Your task to perform on an android device: When is my next appointment? Image 0: 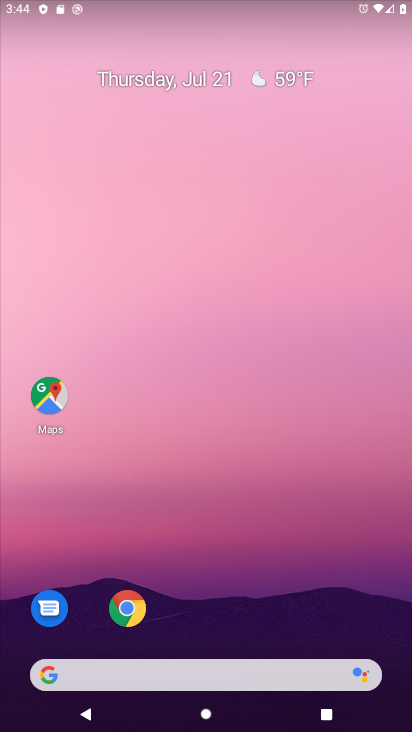
Step 0: drag from (188, 662) to (247, 48)
Your task to perform on an android device: When is my next appointment? Image 1: 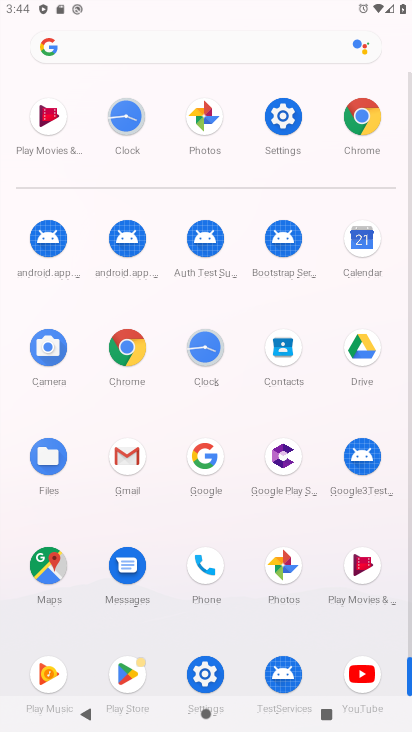
Step 1: click (370, 248)
Your task to perform on an android device: When is my next appointment? Image 2: 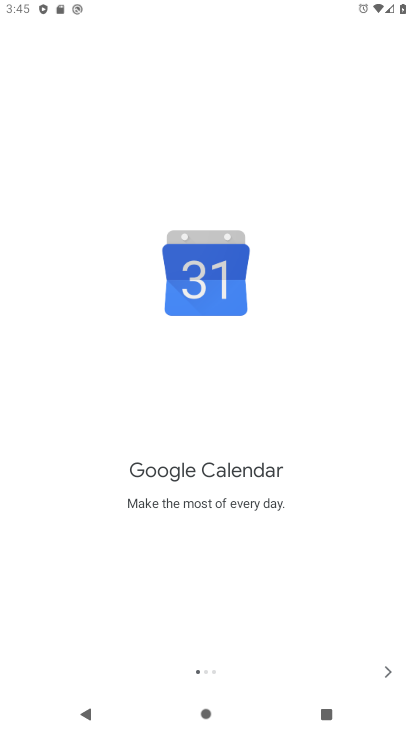
Step 2: click (392, 668)
Your task to perform on an android device: When is my next appointment? Image 3: 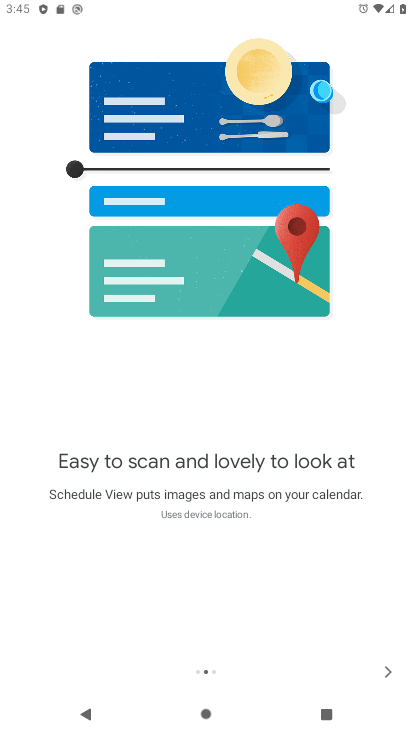
Step 3: click (392, 668)
Your task to perform on an android device: When is my next appointment? Image 4: 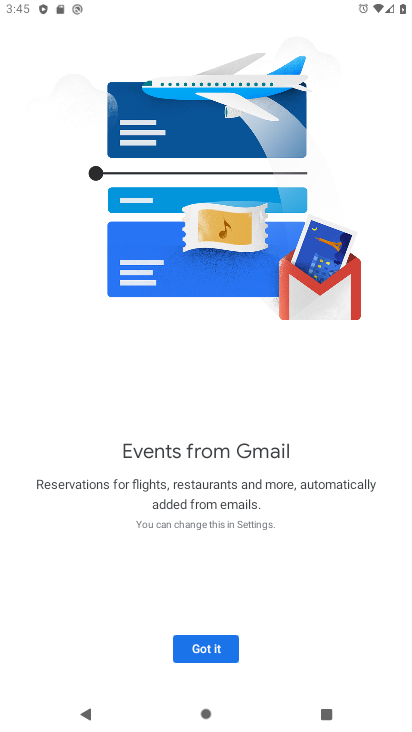
Step 4: click (227, 654)
Your task to perform on an android device: When is my next appointment? Image 5: 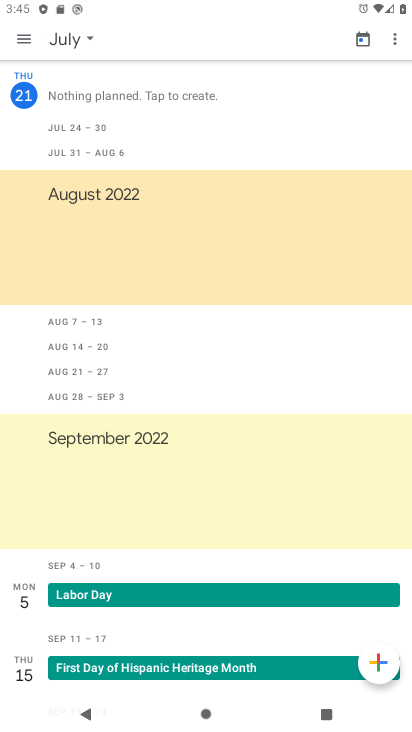
Step 5: click (77, 40)
Your task to perform on an android device: When is my next appointment? Image 6: 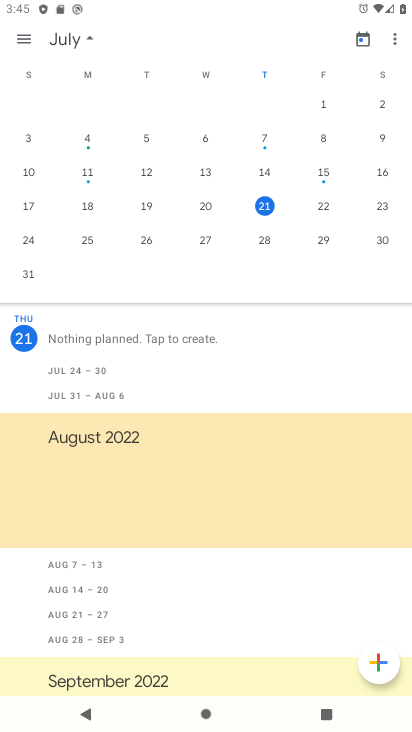
Step 6: click (318, 206)
Your task to perform on an android device: When is my next appointment? Image 7: 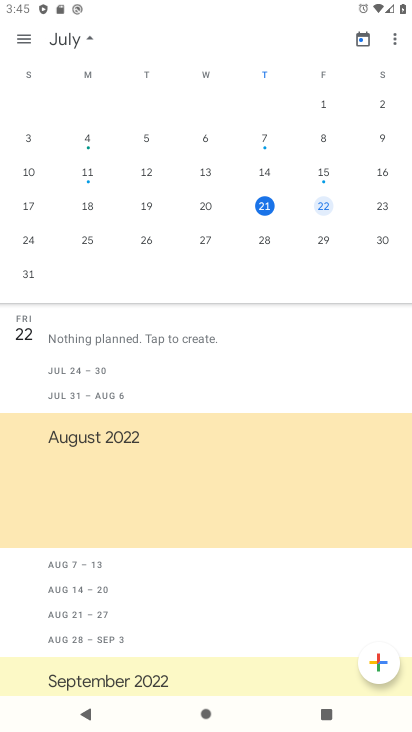
Step 7: task complete